Your task to perform on an android device: install app "Microsoft Excel" Image 0: 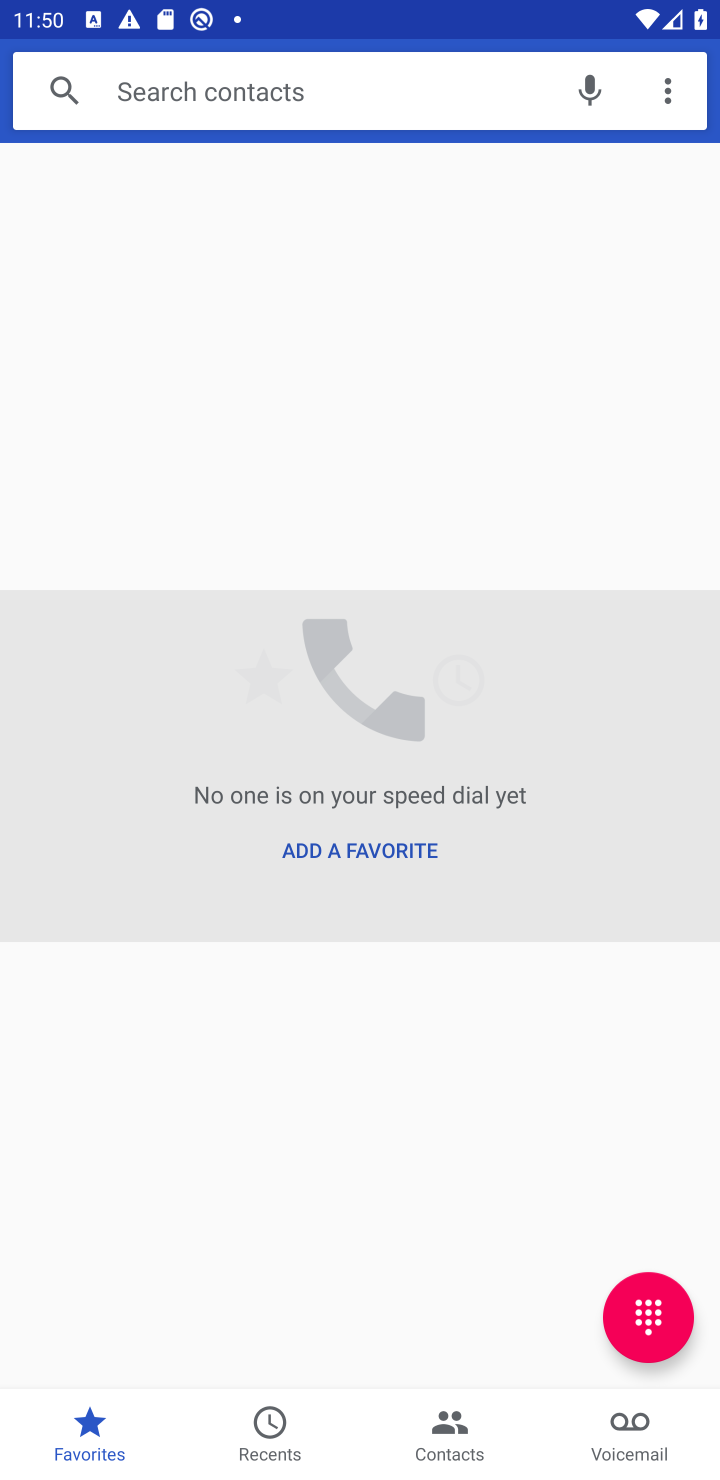
Step 0: press home button
Your task to perform on an android device: install app "Microsoft Excel" Image 1: 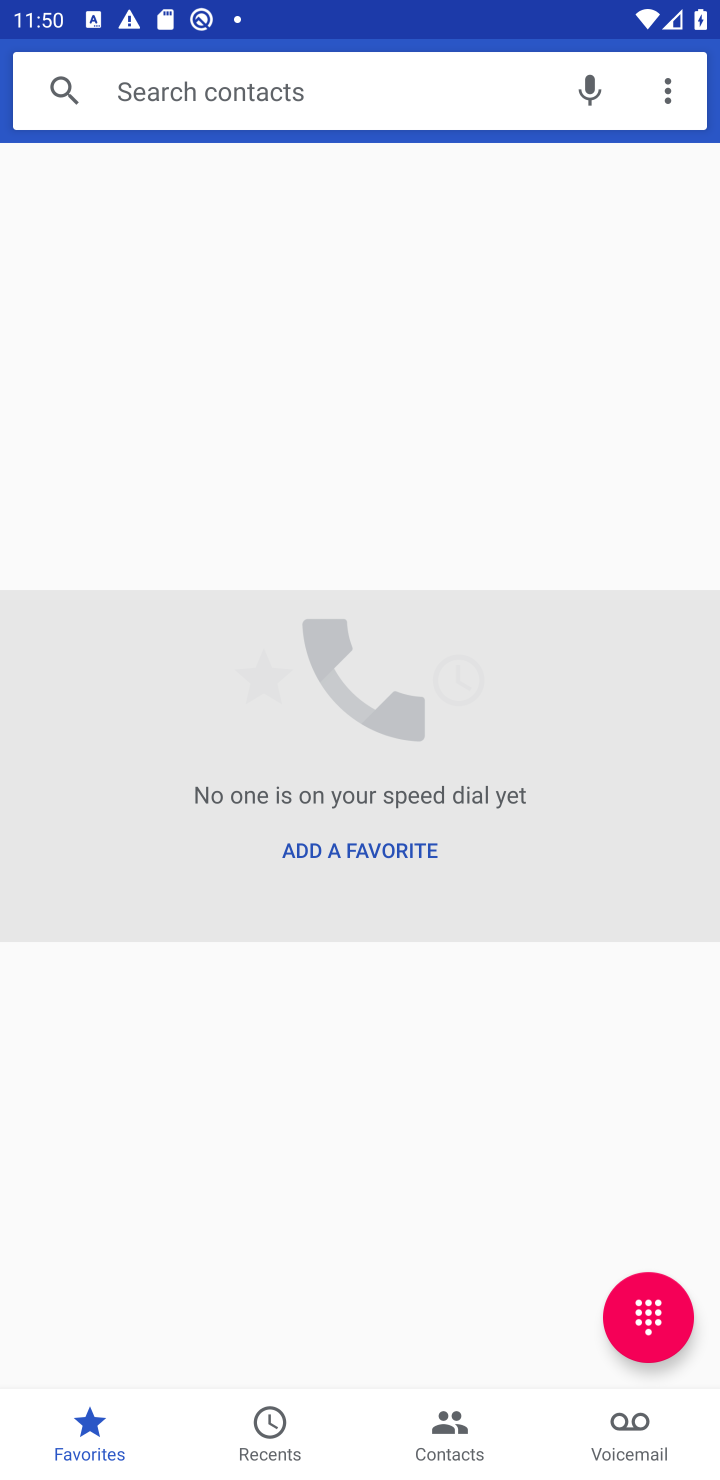
Step 1: press home button
Your task to perform on an android device: install app "Microsoft Excel" Image 2: 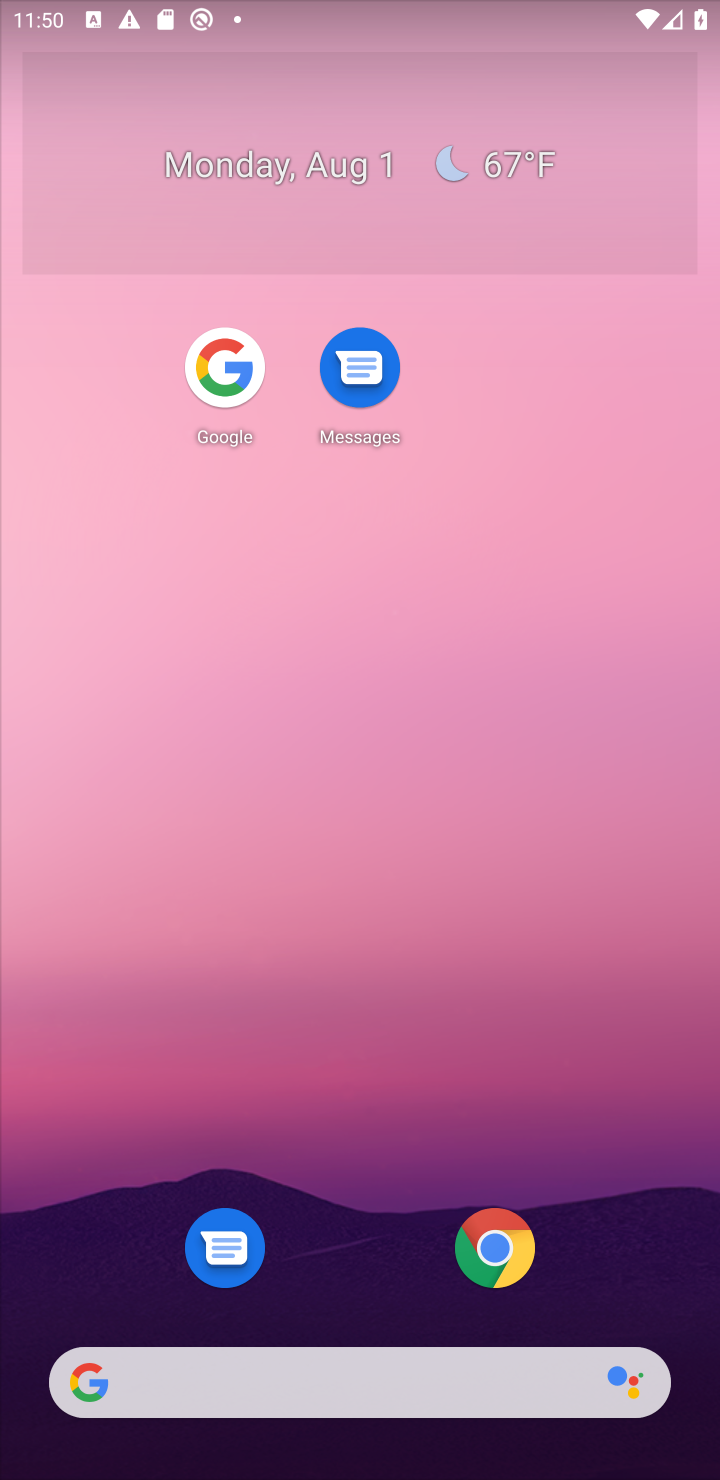
Step 2: drag from (553, 775) to (563, 57)
Your task to perform on an android device: install app "Microsoft Excel" Image 3: 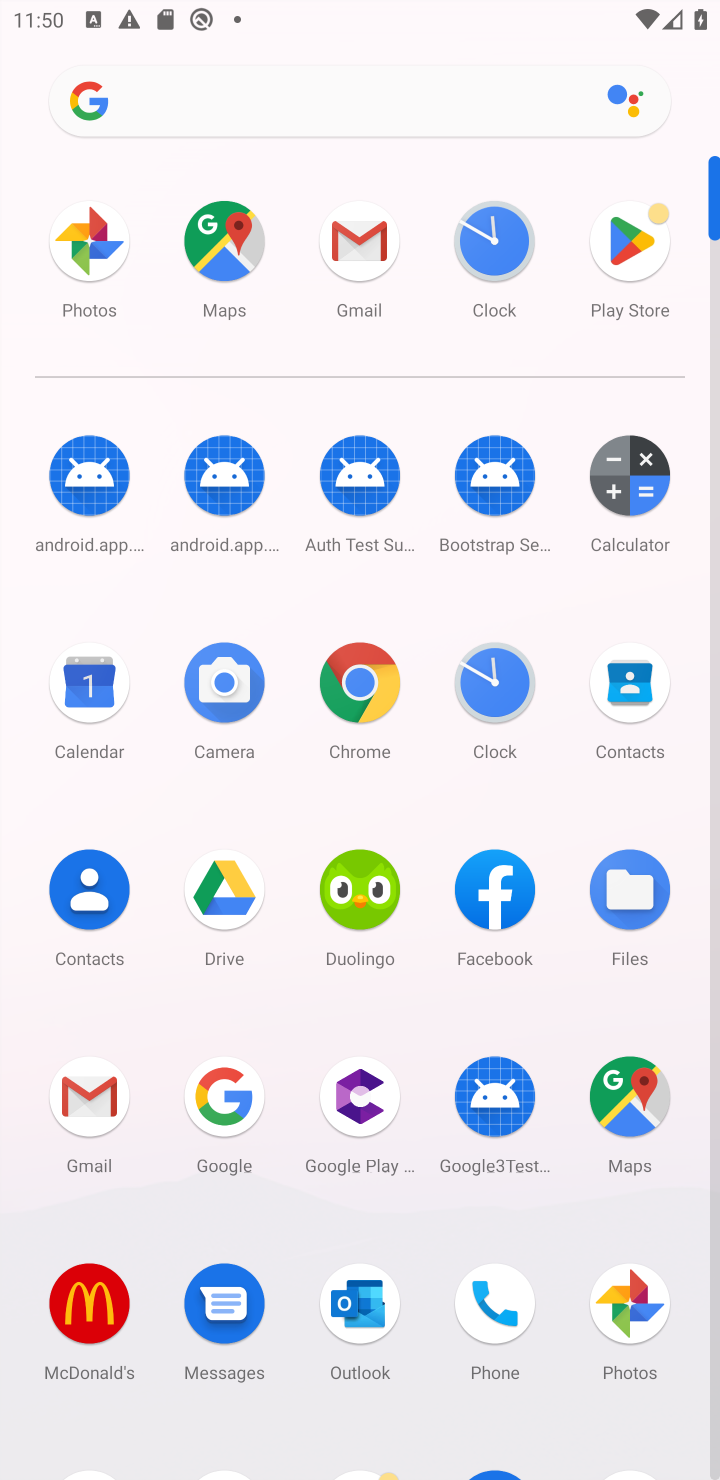
Step 3: drag from (421, 1202) to (410, 529)
Your task to perform on an android device: install app "Microsoft Excel" Image 4: 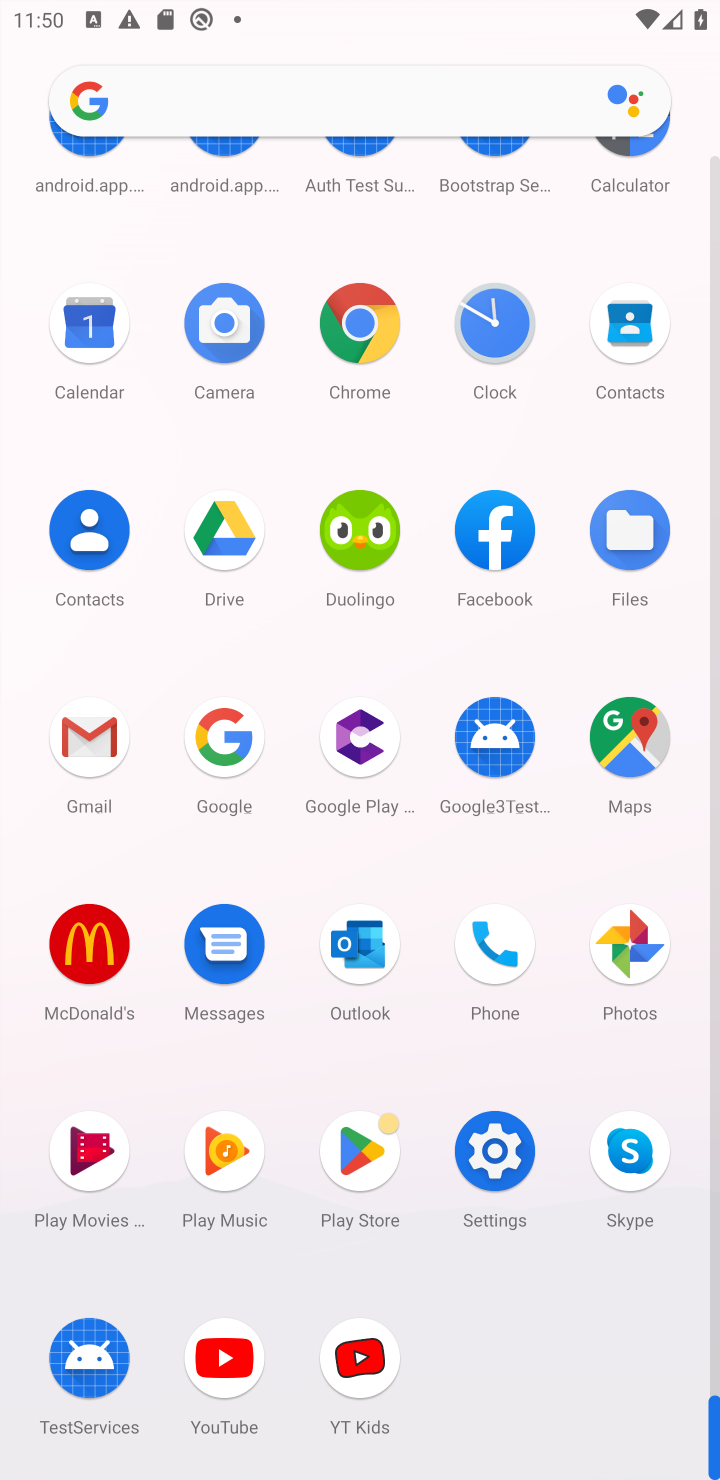
Step 4: click (383, 1159)
Your task to perform on an android device: install app "Microsoft Excel" Image 5: 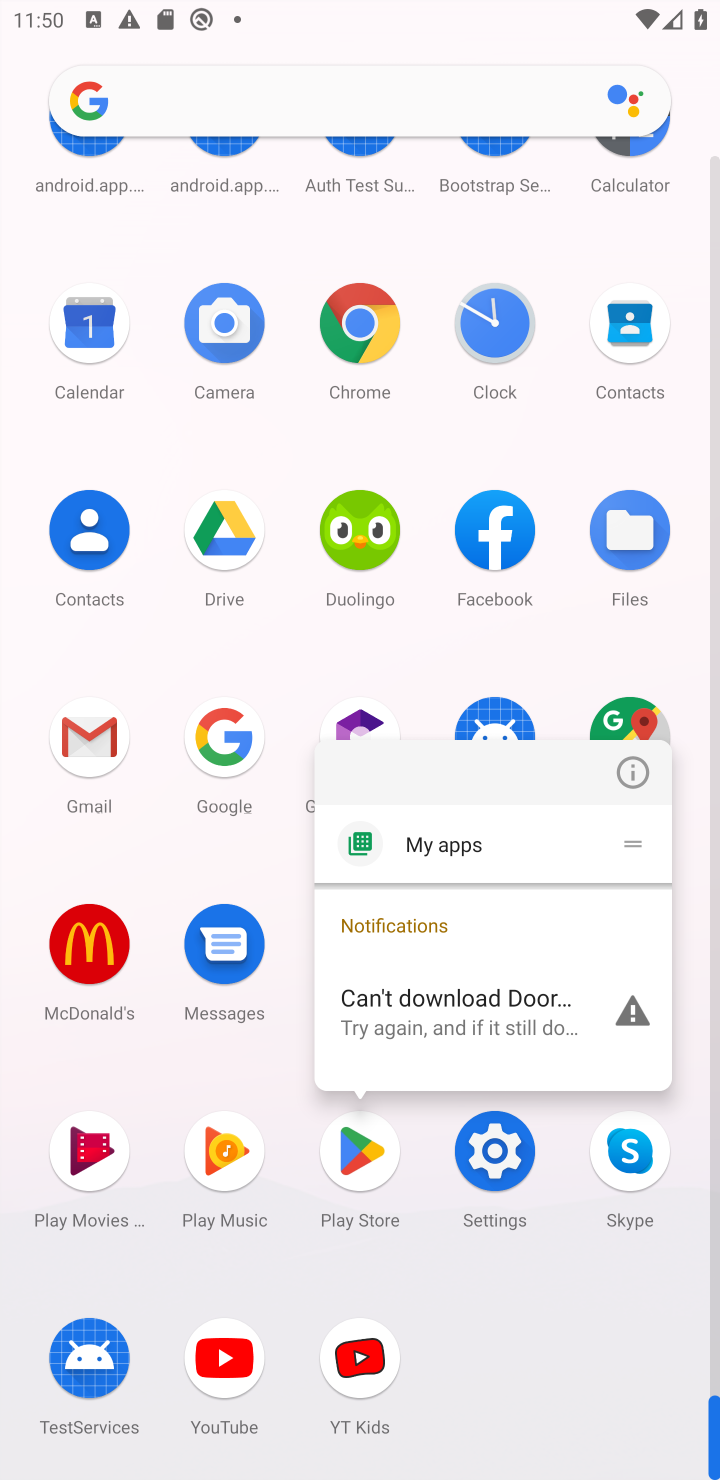
Step 5: click (360, 1172)
Your task to perform on an android device: install app "Microsoft Excel" Image 6: 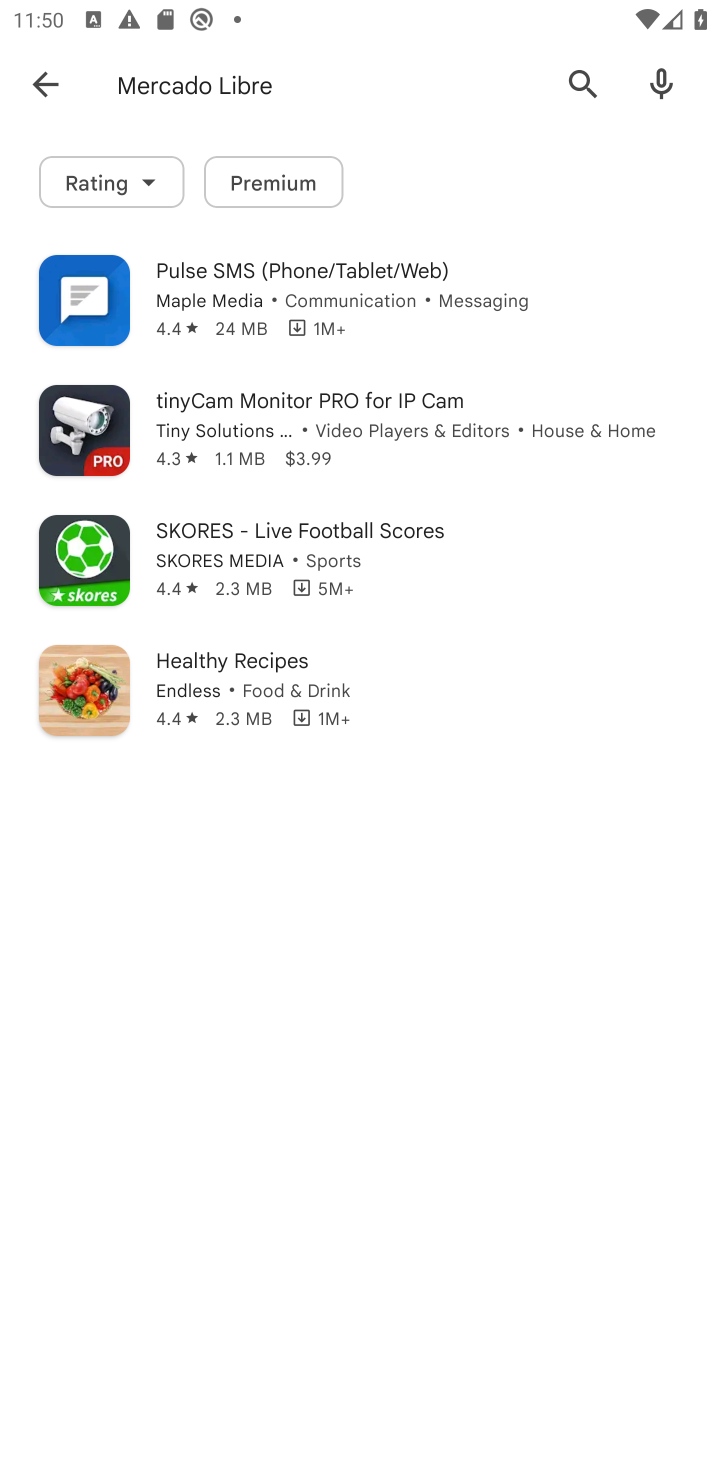
Step 6: click (415, 85)
Your task to perform on an android device: install app "Microsoft Excel" Image 7: 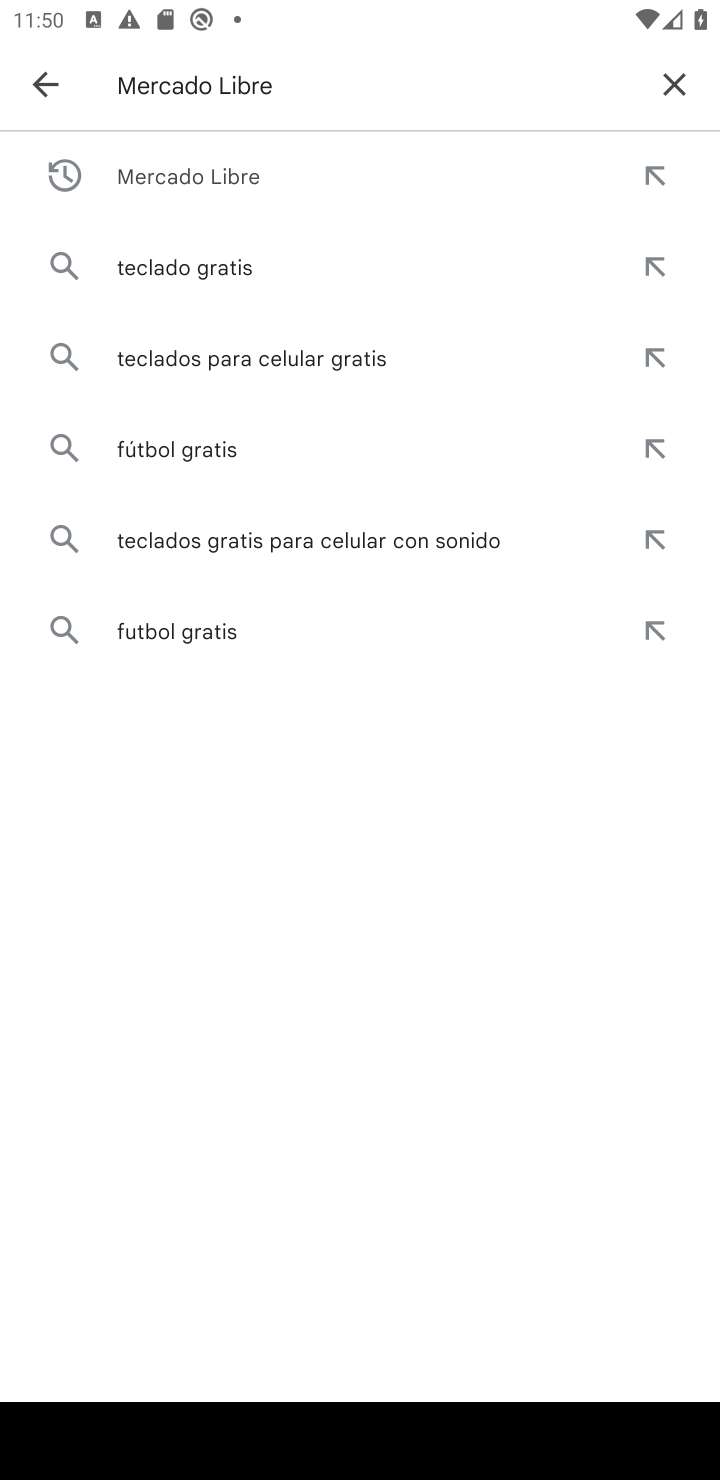
Step 7: click (670, 80)
Your task to perform on an android device: install app "Microsoft Excel" Image 8: 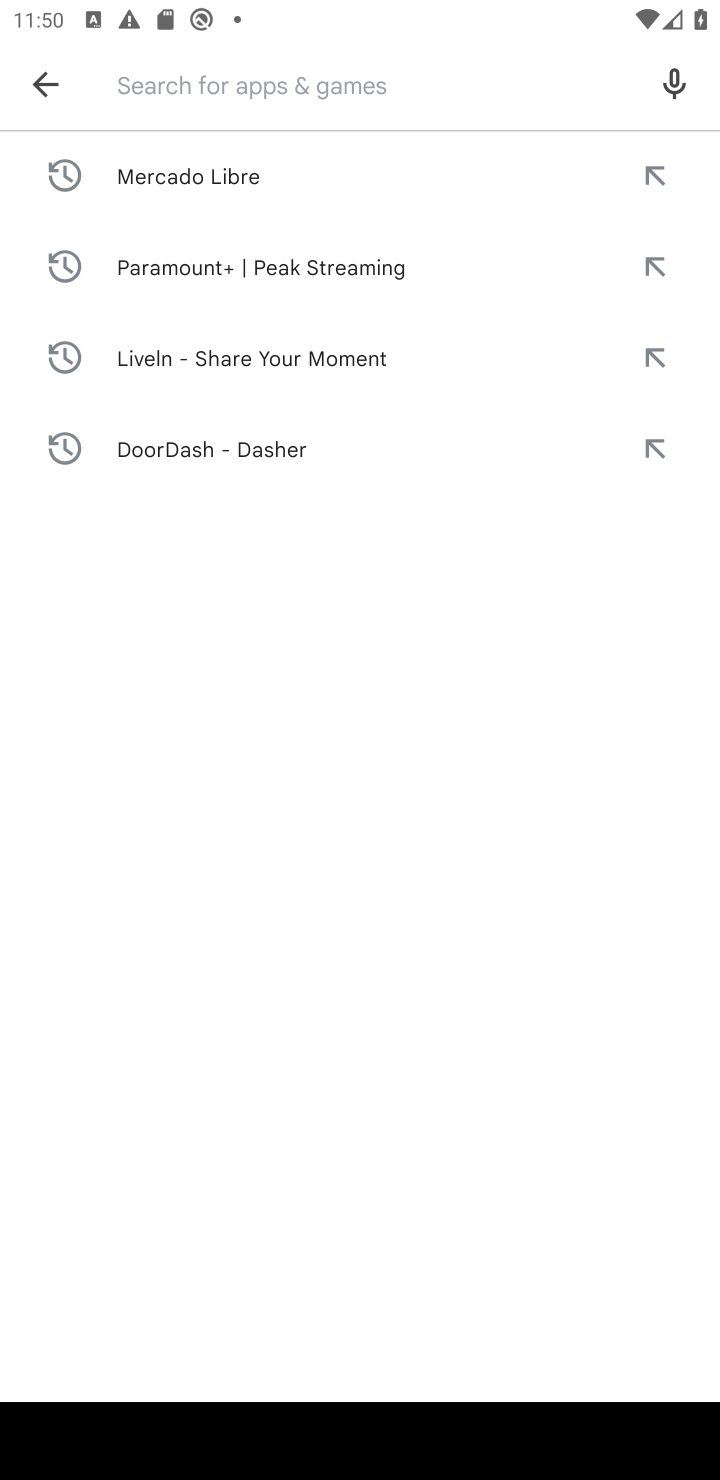
Step 8: type "Microsoft Excel"
Your task to perform on an android device: install app "Microsoft Excel" Image 9: 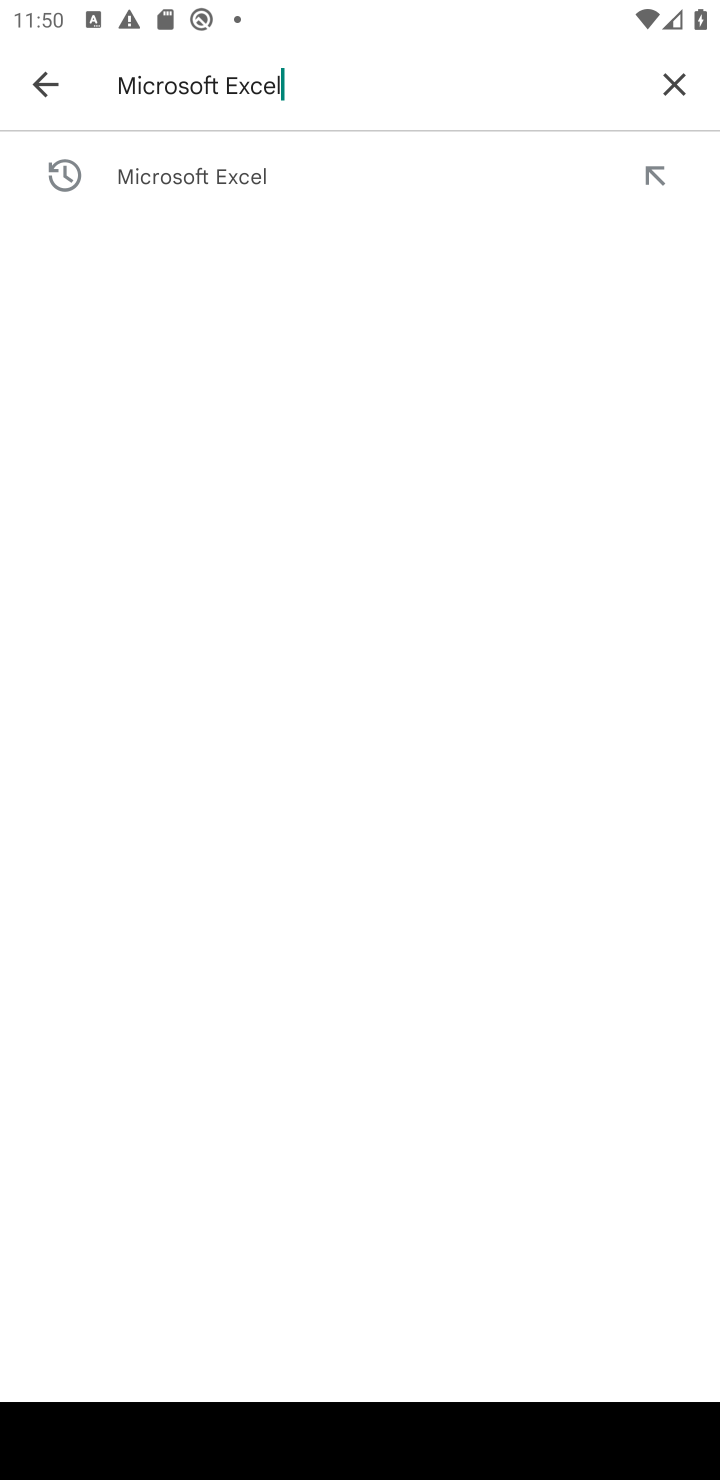
Step 9: press enter
Your task to perform on an android device: install app "Microsoft Excel" Image 10: 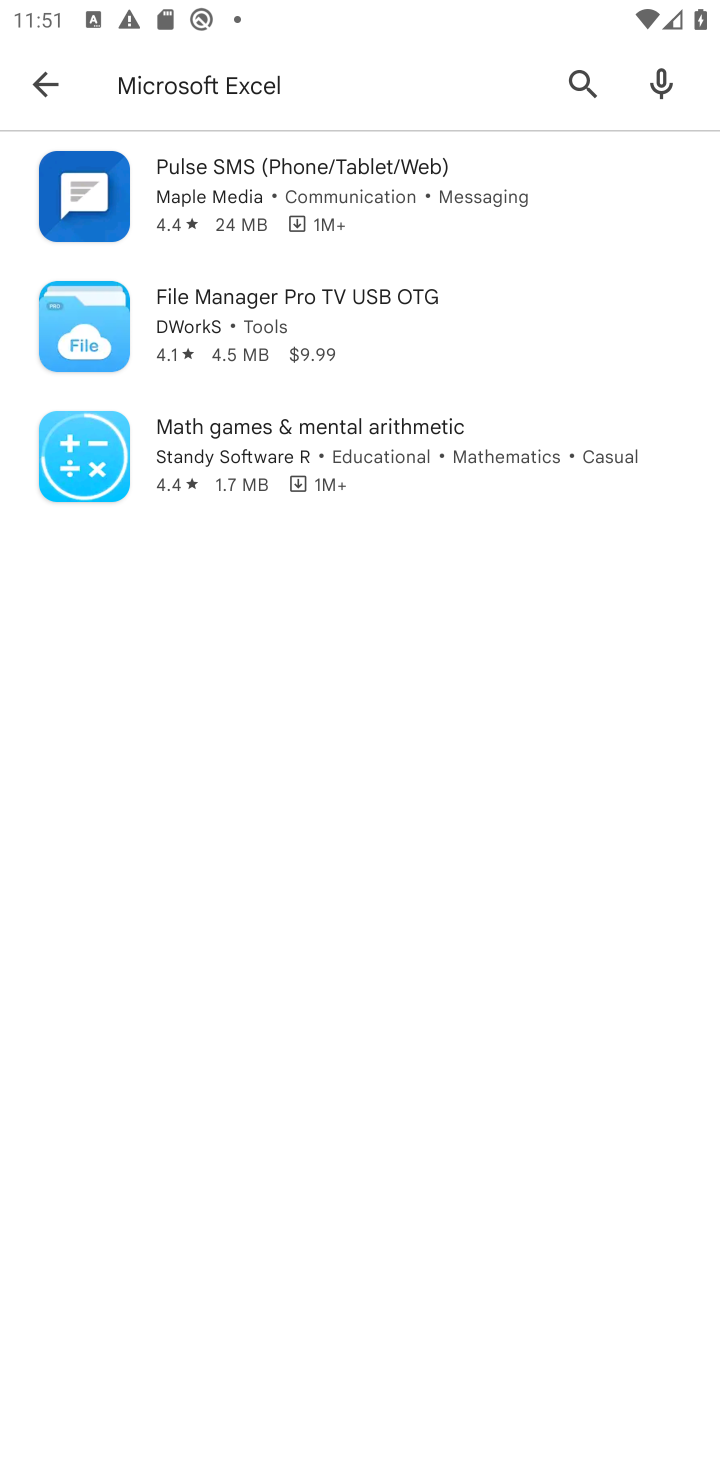
Step 10: press enter
Your task to perform on an android device: install app "Microsoft Excel" Image 11: 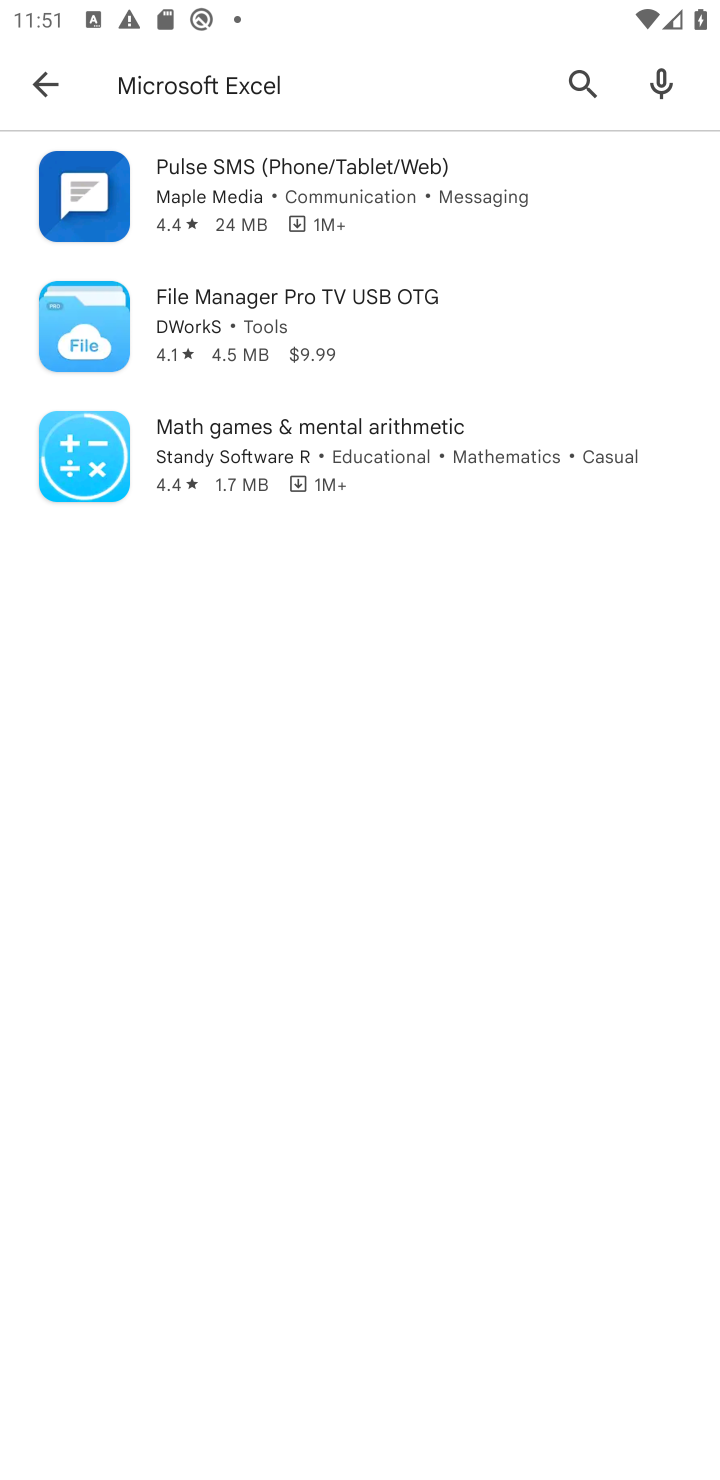
Step 11: task complete